Your task to perform on an android device: Open Wikipedia Image 0: 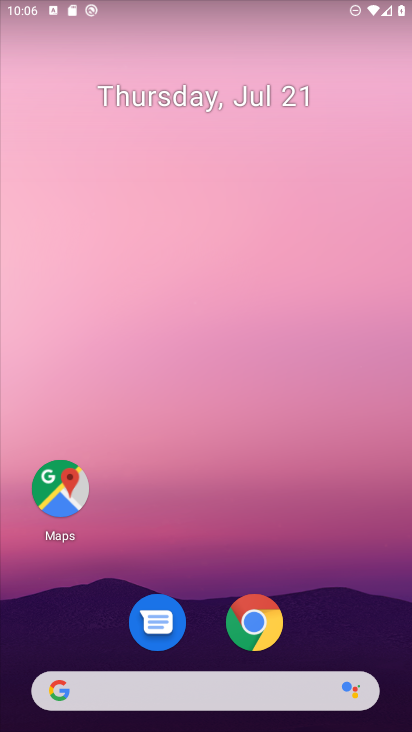
Step 0: drag from (178, 722) to (259, 22)
Your task to perform on an android device: Open Wikipedia Image 1: 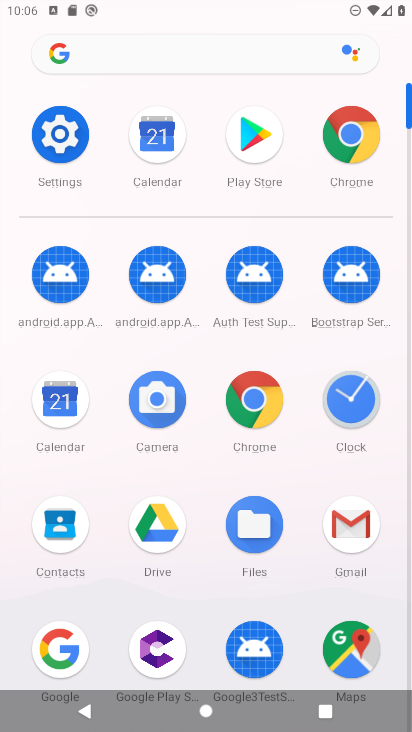
Step 1: click (245, 51)
Your task to perform on an android device: Open Wikipedia Image 2: 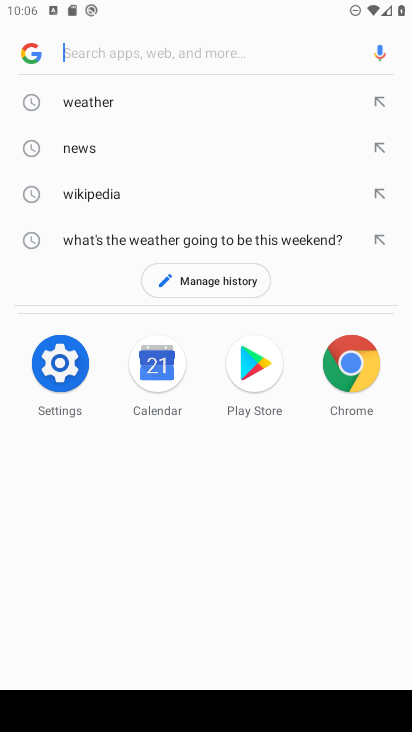
Step 2: click (102, 195)
Your task to perform on an android device: Open Wikipedia Image 3: 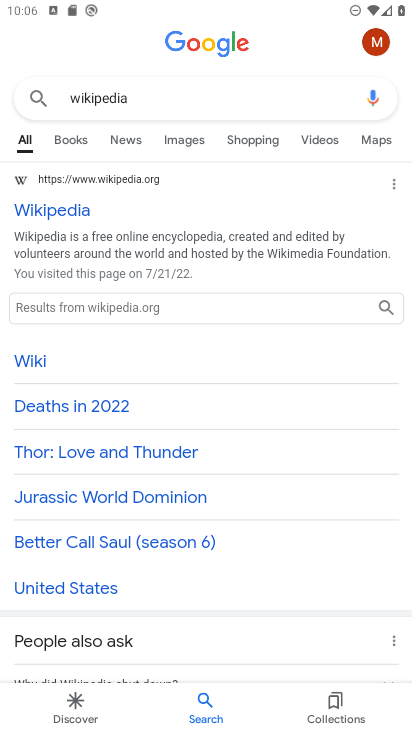
Step 3: click (73, 205)
Your task to perform on an android device: Open Wikipedia Image 4: 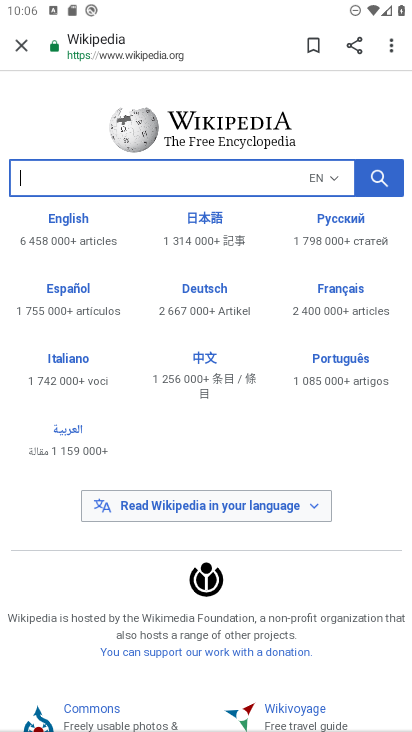
Step 4: task complete